Your task to perform on an android device: turn off wifi Image 0: 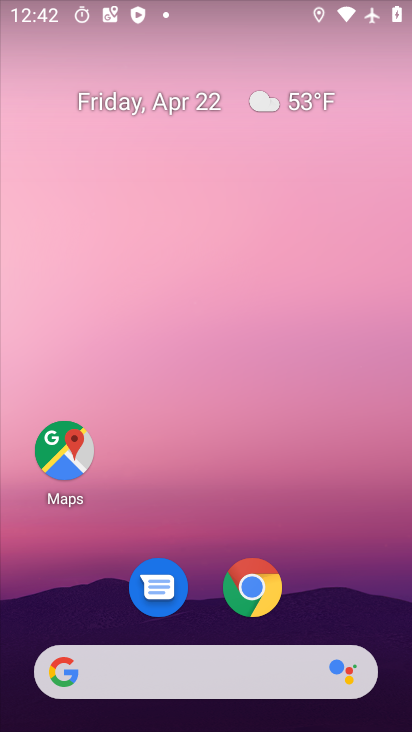
Step 0: drag from (182, 576) to (287, 72)
Your task to perform on an android device: turn off wifi Image 1: 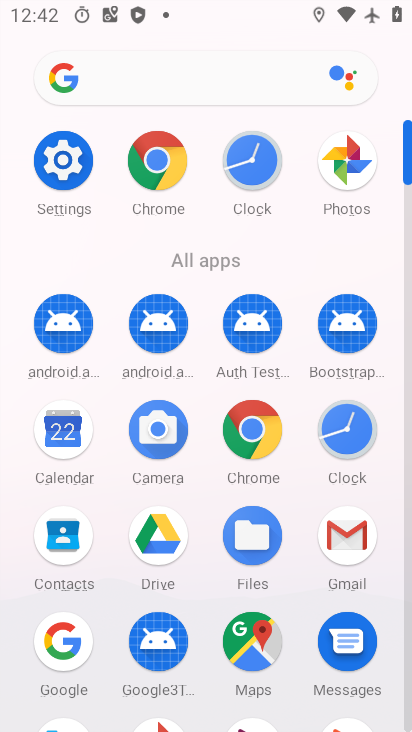
Step 1: click (73, 158)
Your task to perform on an android device: turn off wifi Image 2: 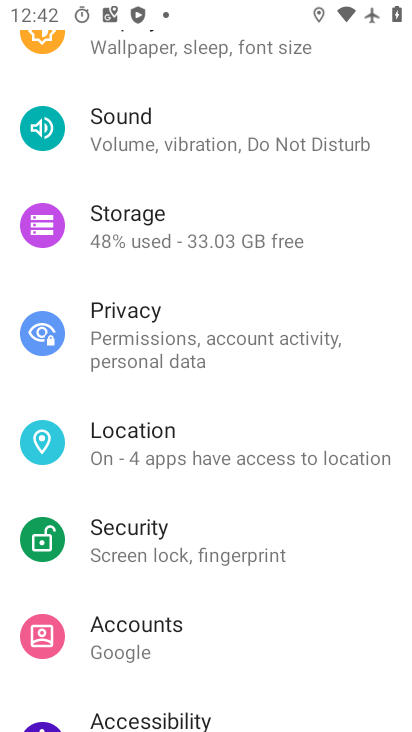
Step 2: drag from (257, 108) to (215, 574)
Your task to perform on an android device: turn off wifi Image 3: 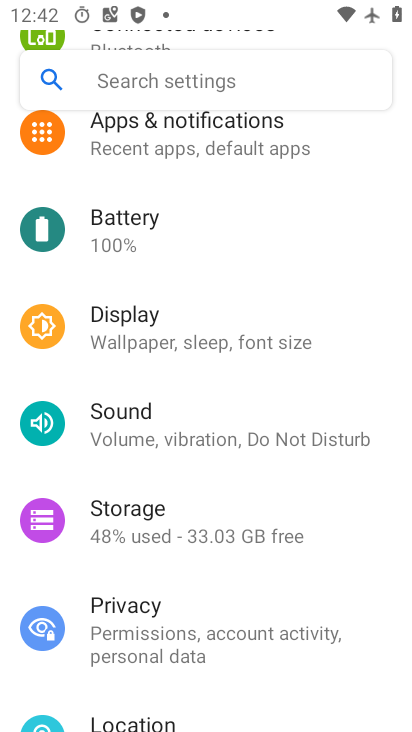
Step 3: drag from (234, 288) to (221, 613)
Your task to perform on an android device: turn off wifi Image 4: 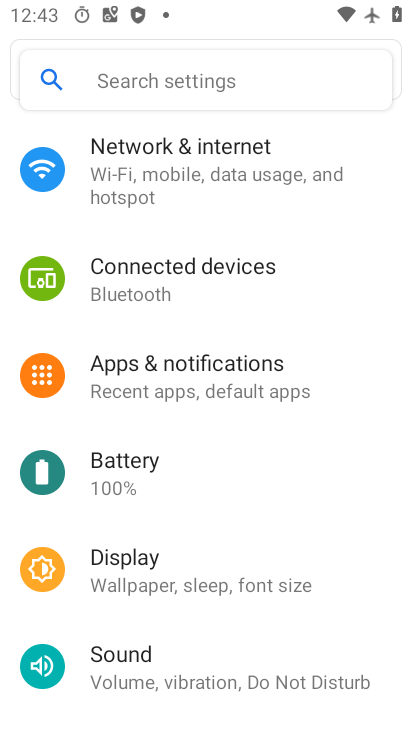
Step 4: drag from (232, 227) to (237, 531)
Your task to perform on an android device: turn off wifi Image 5: 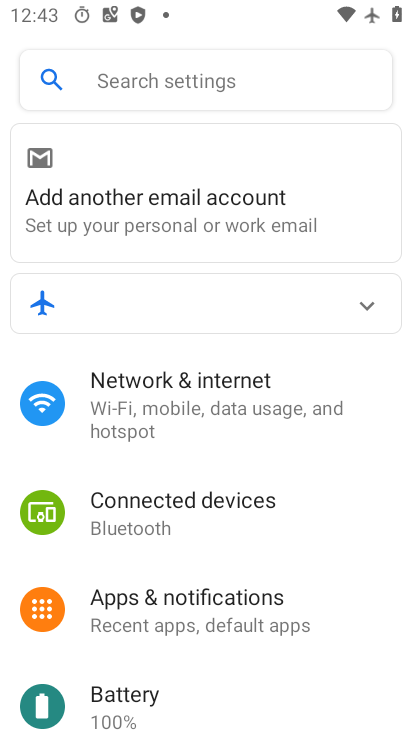
Step 5: click (180, 377)
Your task to perform on an android device: turn off wifi Image 6: 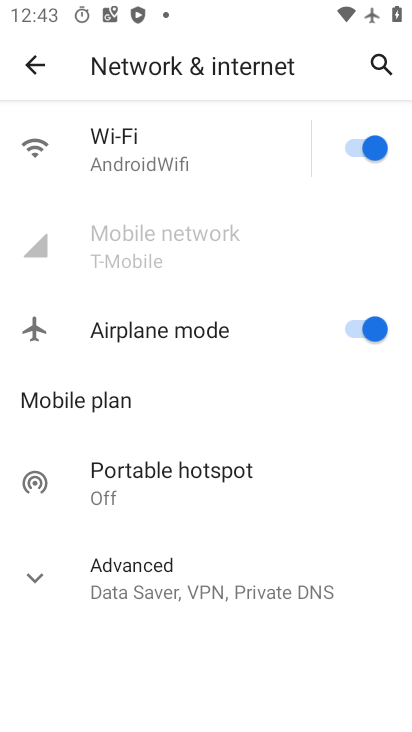
Step 6: click (360, 149)
Your task to perform on an android device: turn off wifi Image 7: 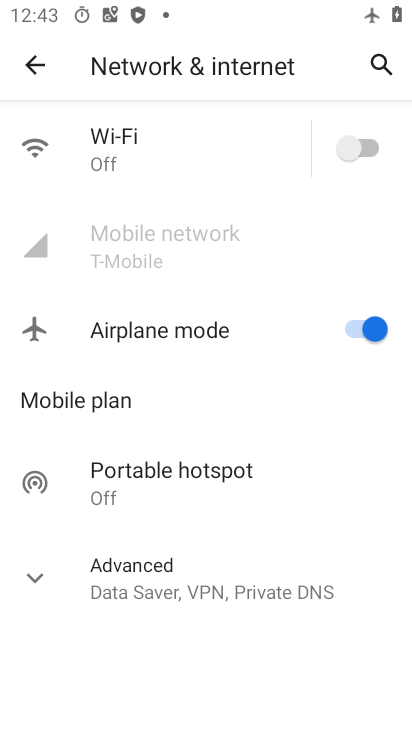
Step 7: task complete